Your task to perform on an android device: Find the nearest electronics store that's open now Image 0: 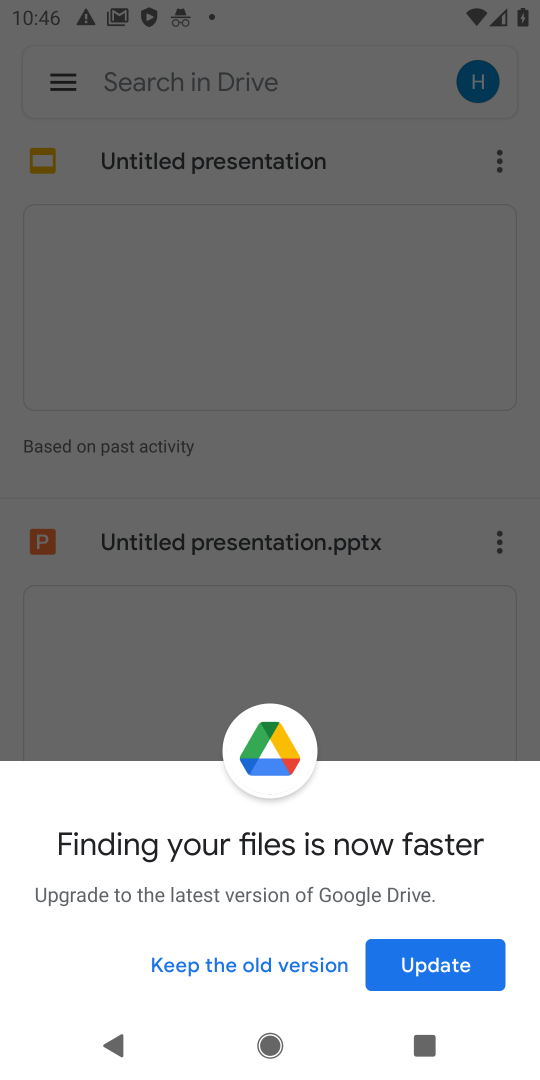
Step 0: press home button
Your task to perform on an android device: Find the nearest electronics store that's open now Image 1: 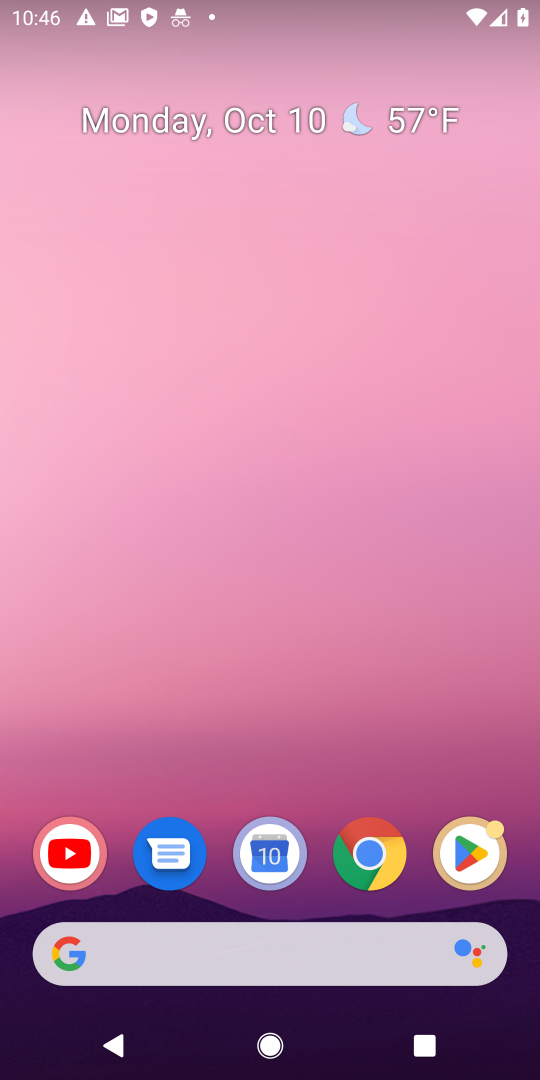
Step 1: click (373, 955)
Your task to perform on an android device: Find the nearest electronics store that's open now Image 2: 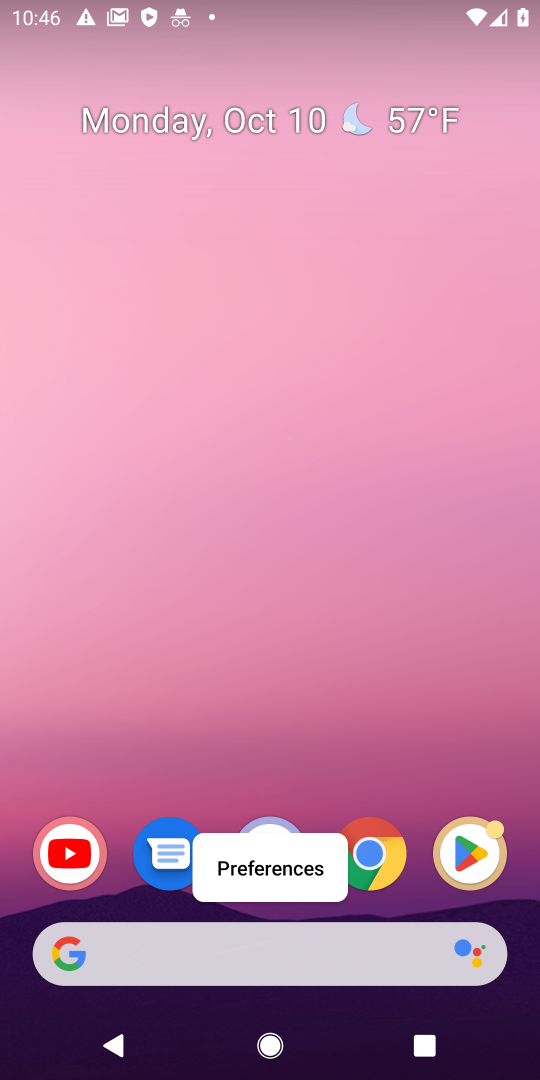
Step 2: click (373, 955)
Your task to perform on an android device: Find the nearest electronics store that's open now Image 3: 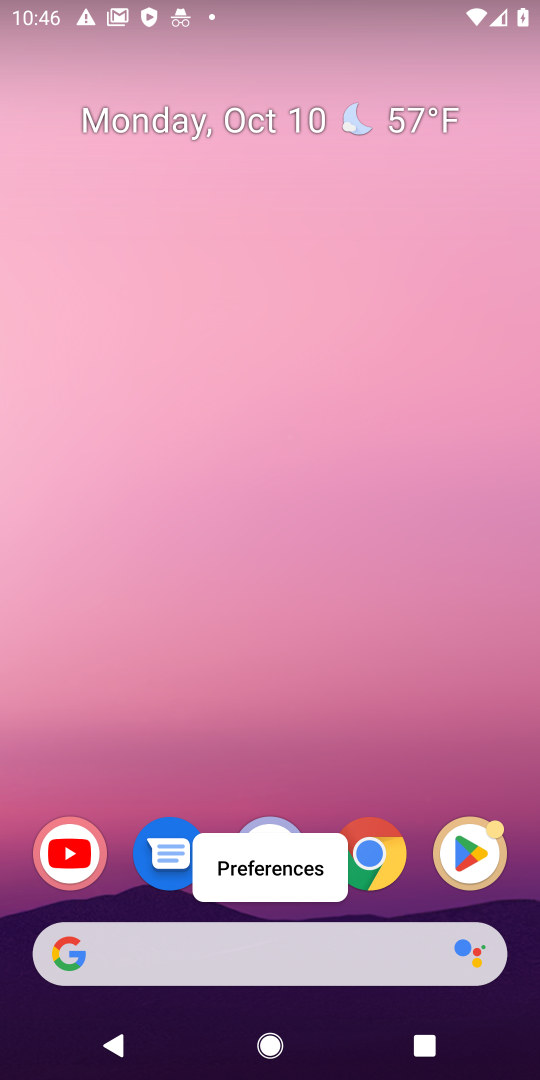
Step 3: click (254, 968)
Your task to perform on an android device: Find the nearest electronics store that's open now Image 4: 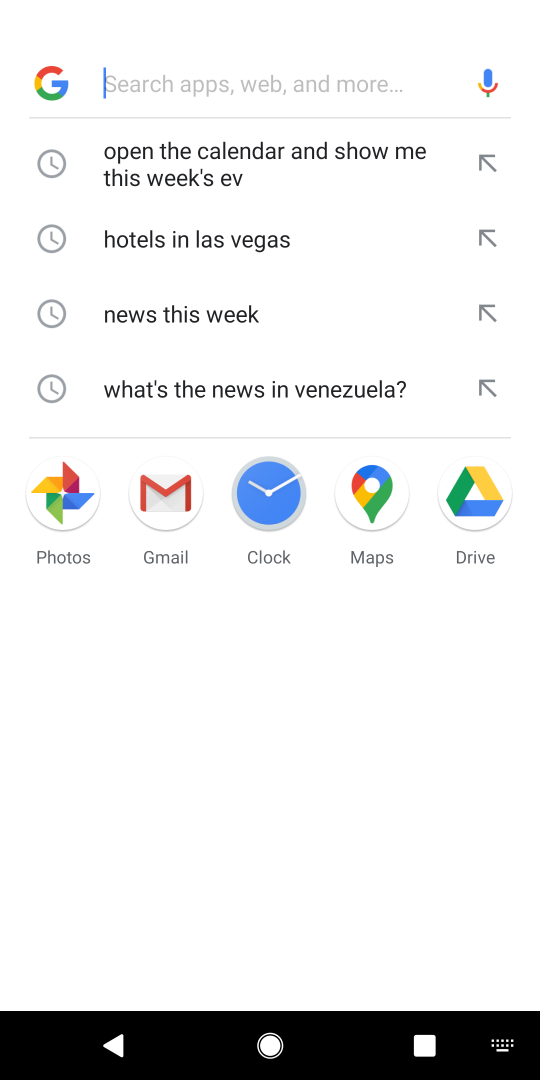
Step 4: type "Find the nearest electronics store that's open now"
Your task to perform on an android device: Find the nearest electronics store that's open now Image 5: 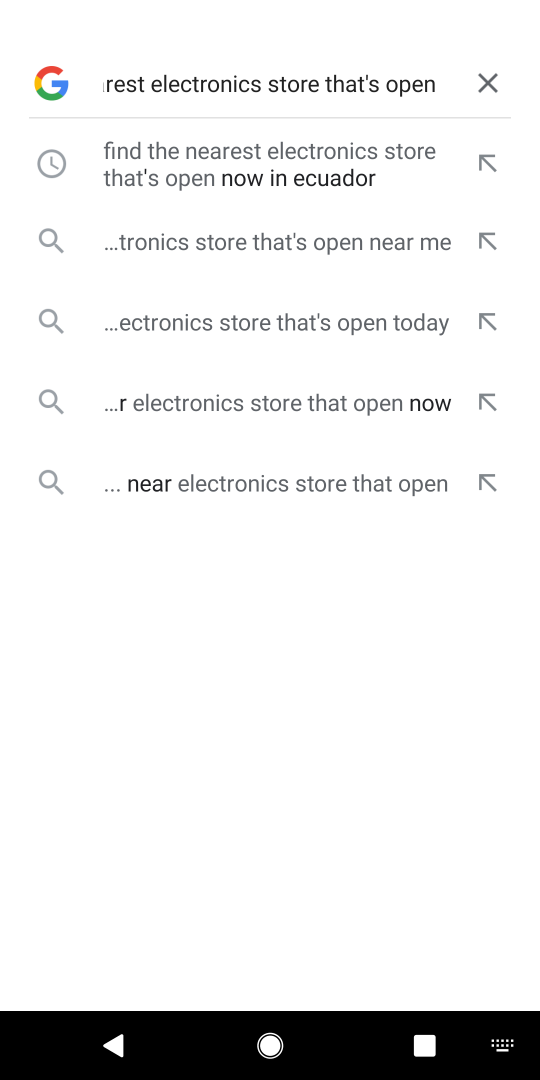
Step 5: press enter
Your task to perform on an android device: Find the nearest electronics store that's open now Image 6: 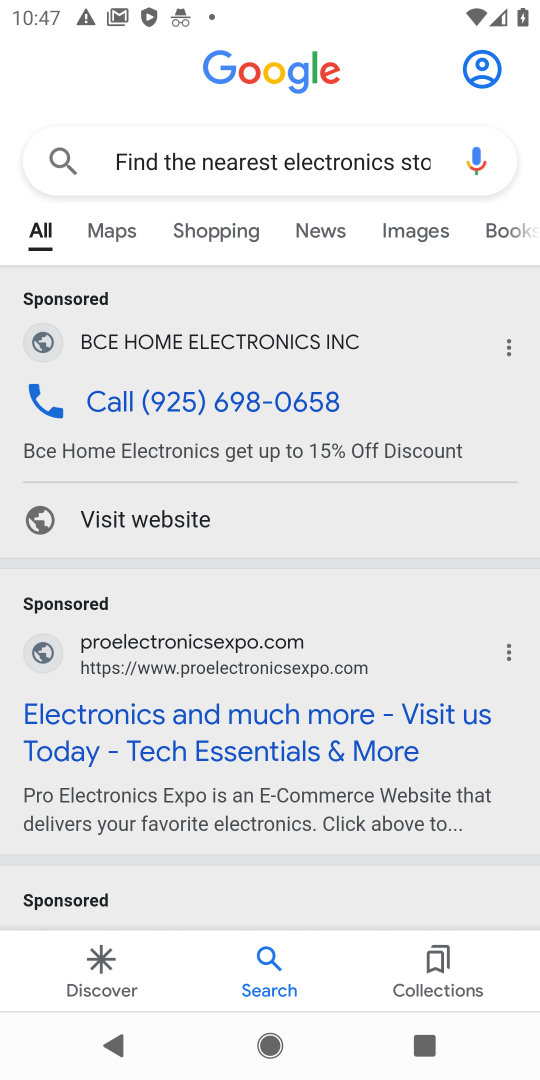
Step 6: task complete